Your task to perform on an android device: Search for "logitech g933" on amazon, select the first entry, add it to the cart, then select checkout. Image 0: 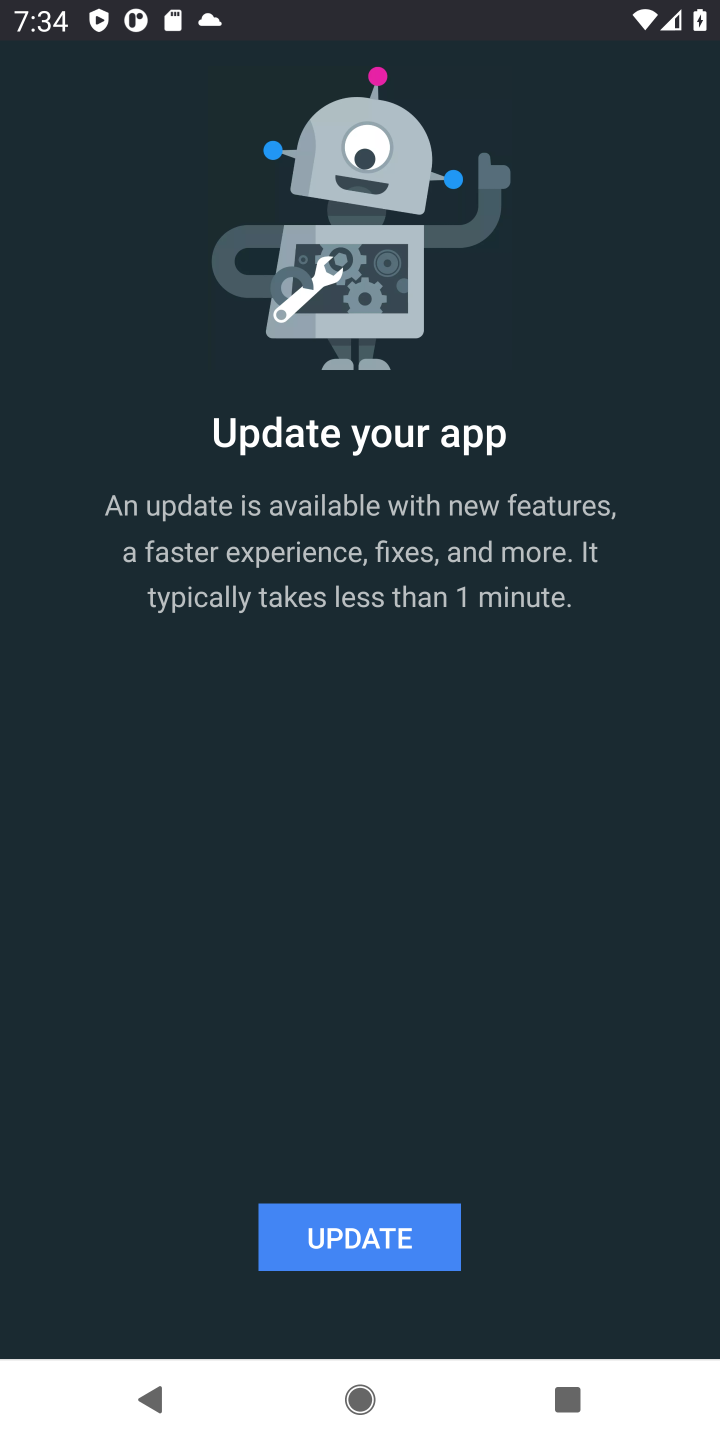
Step 0: press home button
Your task to perform on an android device: Search for "logitech g933" on amazon, select the first entry, add it to the cart, then select checkout. Image 1: 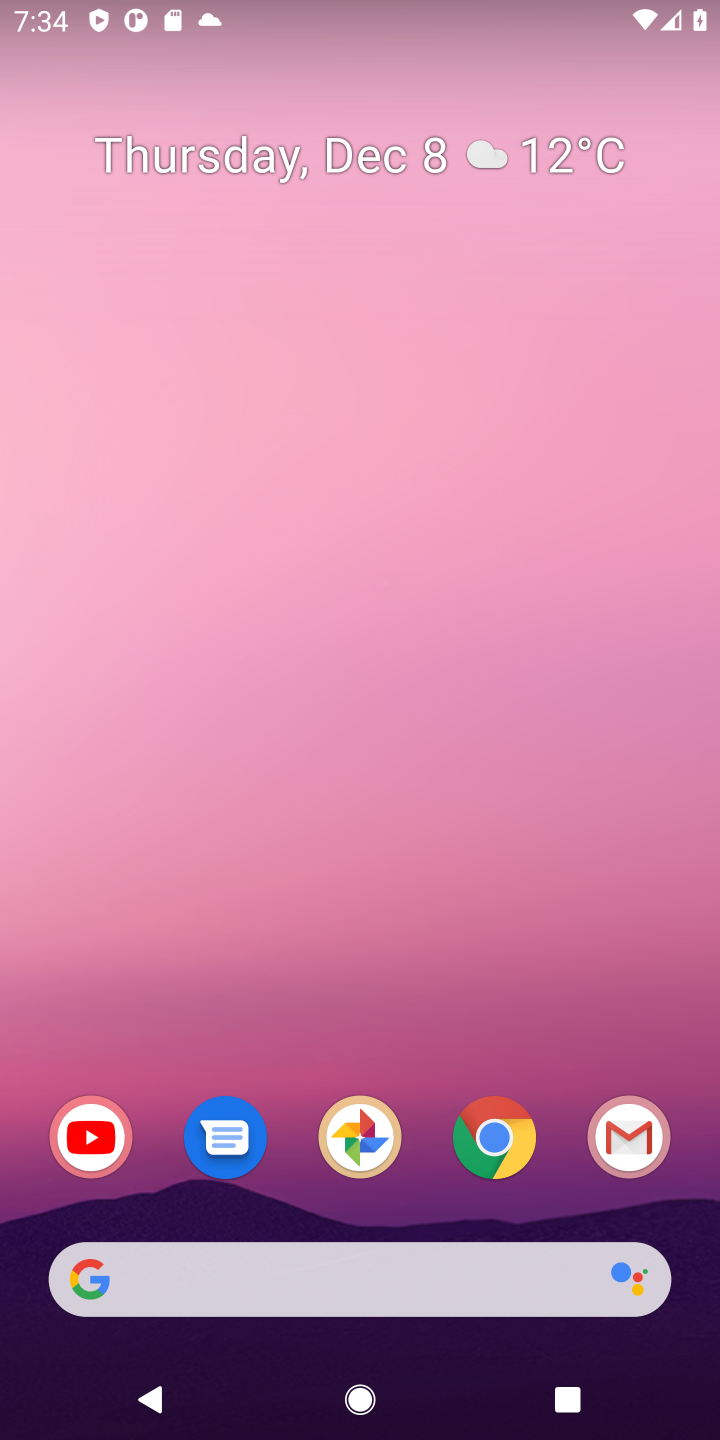
Step 1: click (491, 1116)
Your task to perform on an android device: Search for "logitech g933" on amazon, select the first entry, add it to the cart, then select checkout. Image 2: 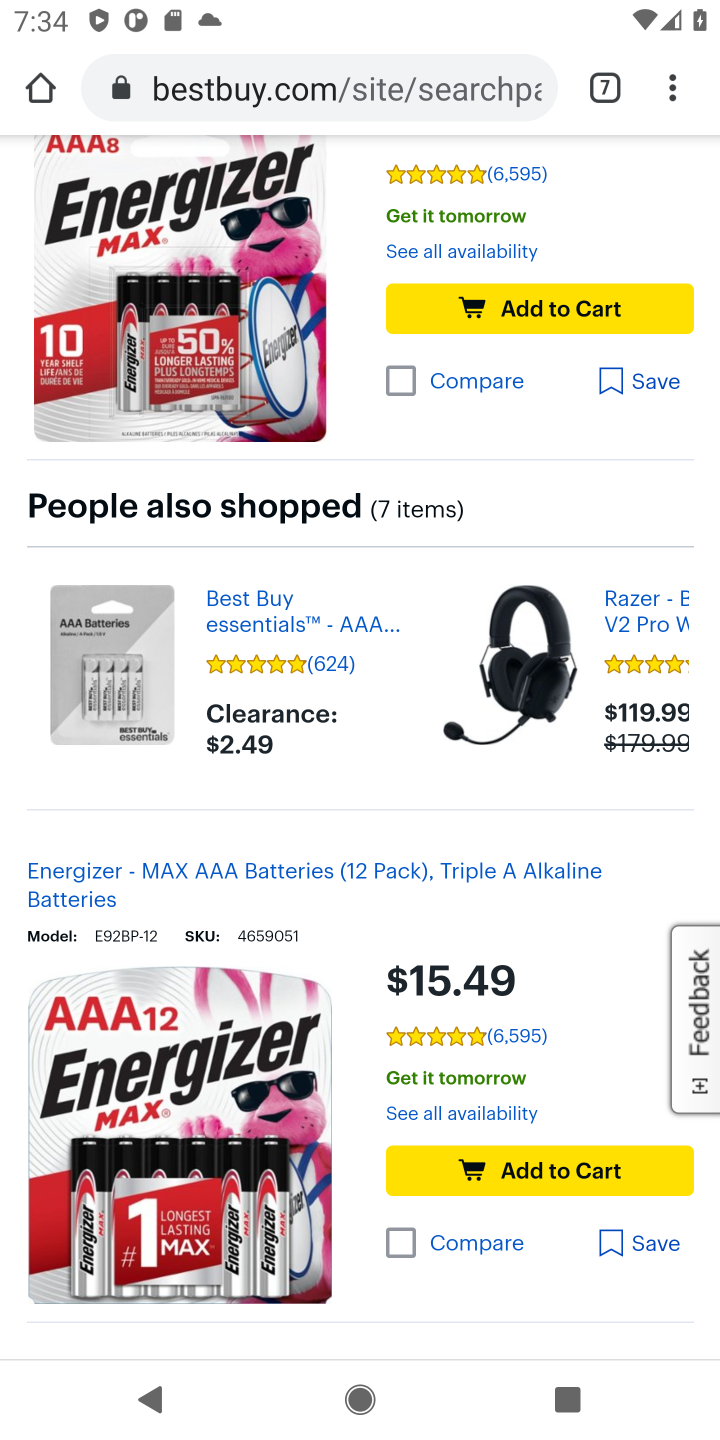
Step 2: click (597, 94)
Your task to perform on an android device: Search for "logitech g933" on amazon, select the first entry, add it to the cart, then select checkout. Image 3: 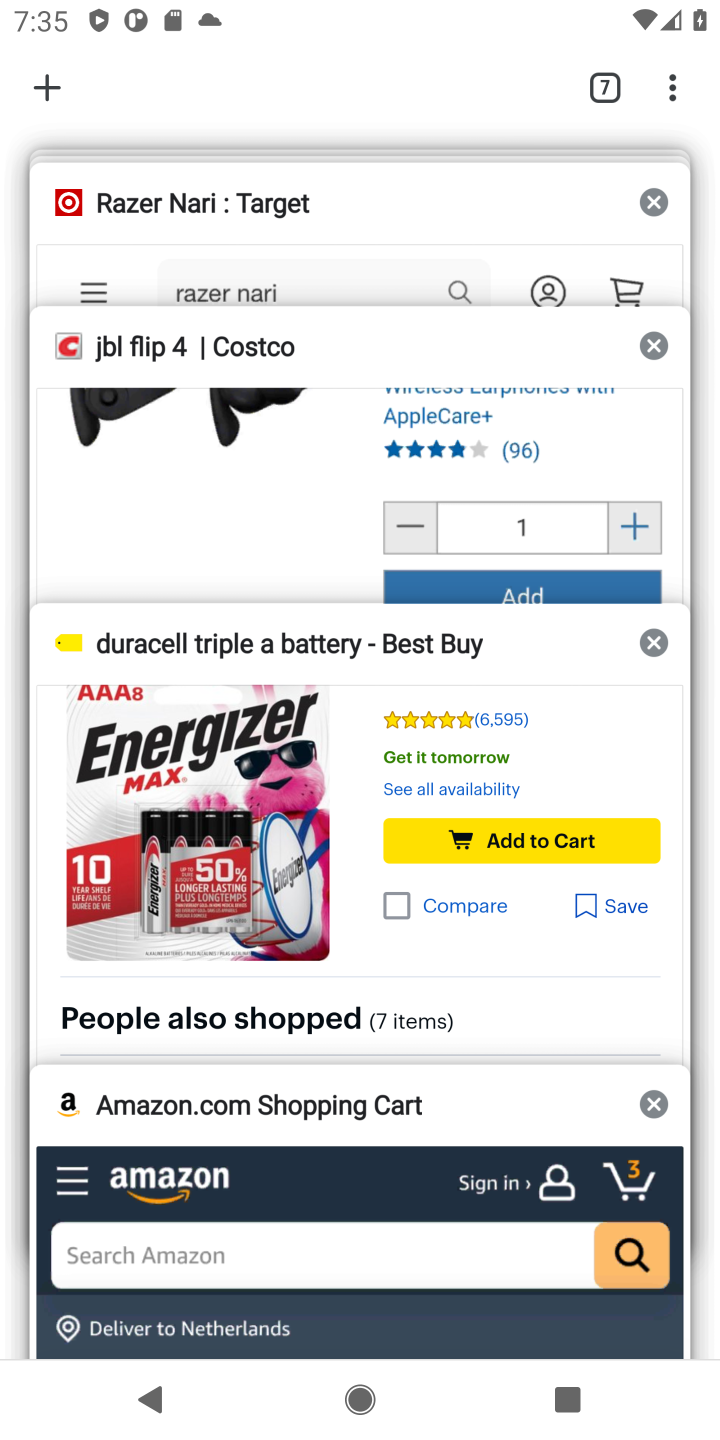
Step 3: click (133, 1205)
Your task to perform on an android device: Search for "logitech g933" on amazon, select the first entry, add it to the cart, then select checkout. Image 4: 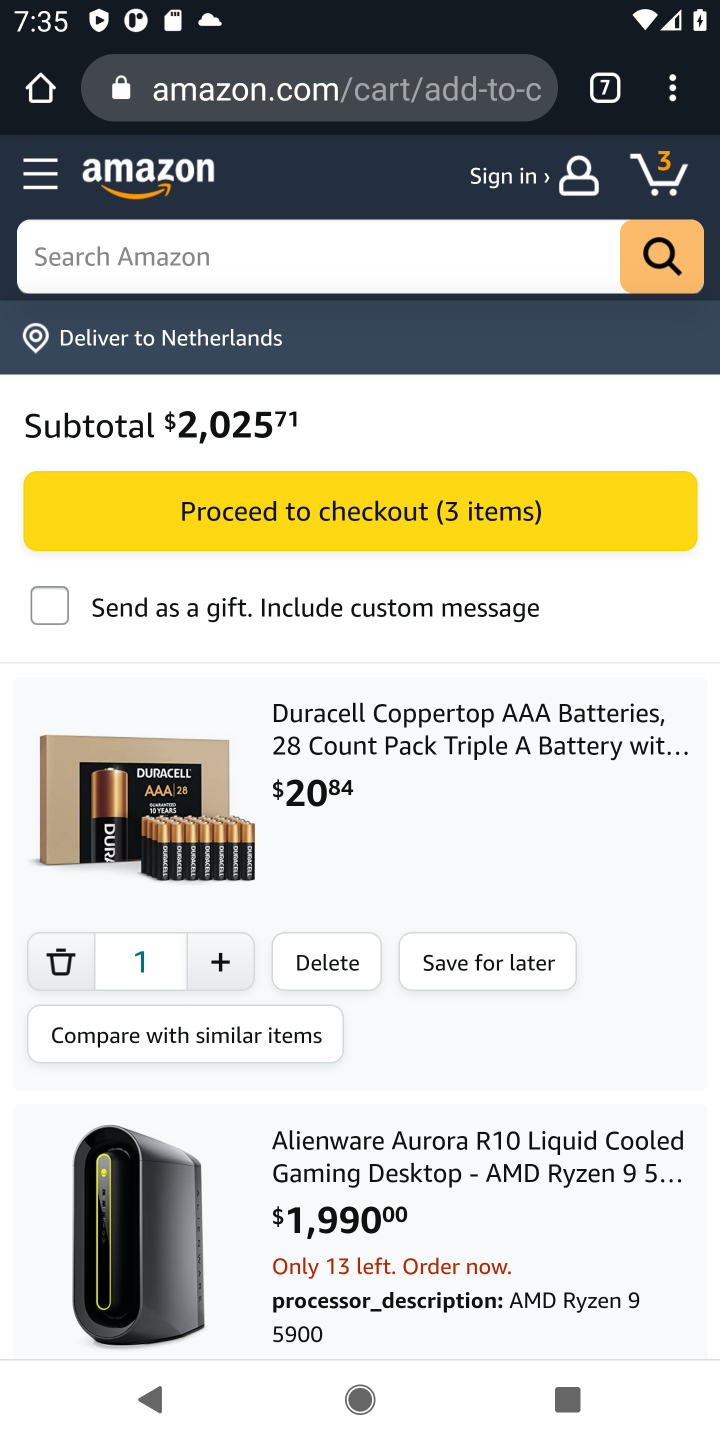
Step 4: click (284, 227)
Your task to perform on an android device: Search for "logitech g933" on amazon, select the first entry, add it to the cart, then select checkout. Image 5: 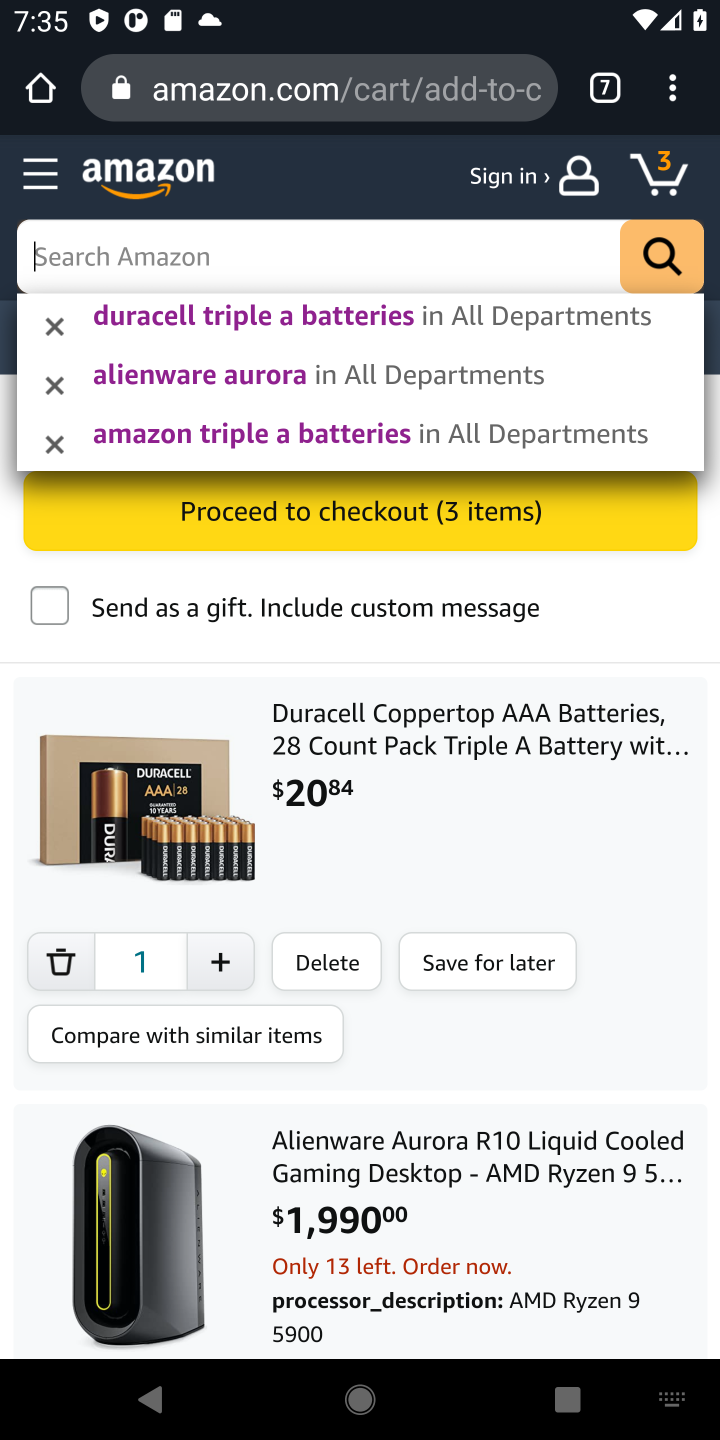
Step 5: type "logitech g933"
Your task to perform on an android device: Search for "logitech g933" on amazon, select the first entry, add it to the cart, then select checkout. Image 6: 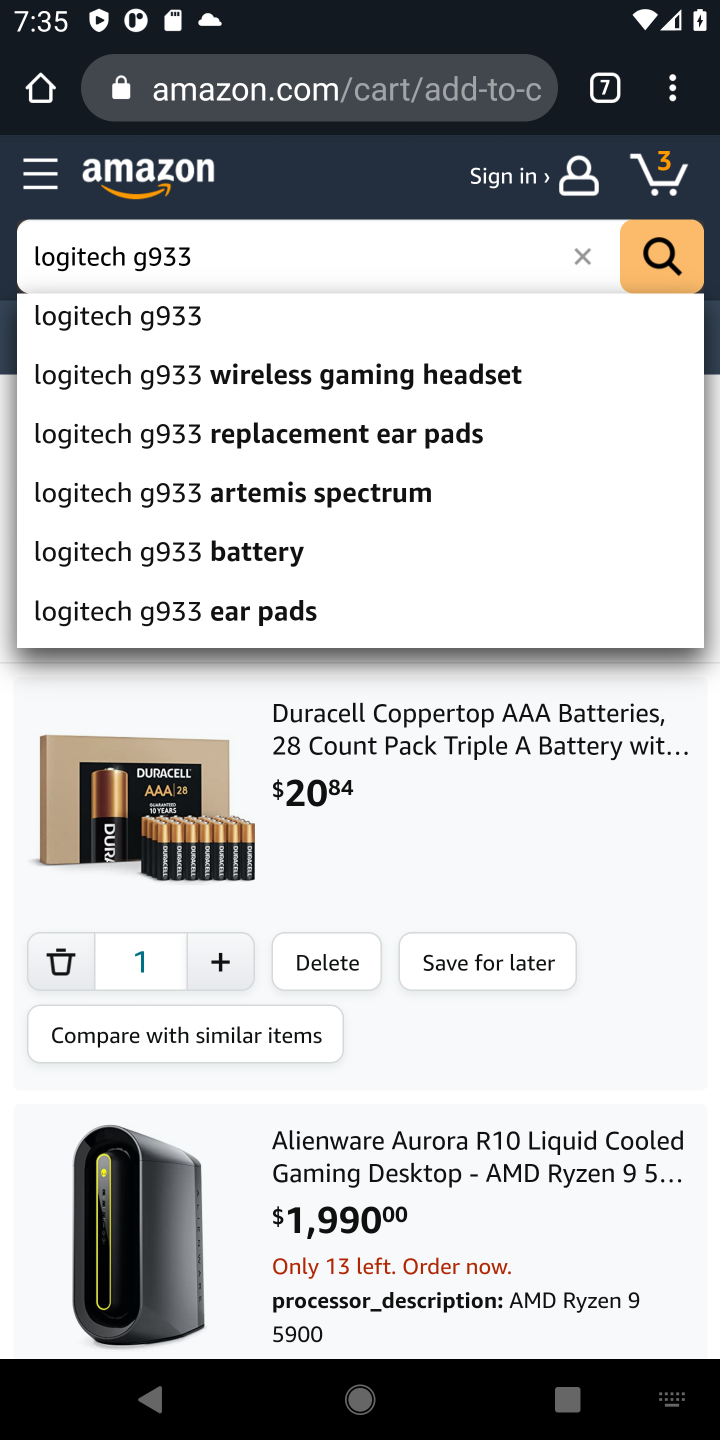
Step 6: click (172, 326)
Your task to perform on an android device: Search for "logitech g933" on amazon, select the first entry, add it to the cart, then select checkout. Image 7: 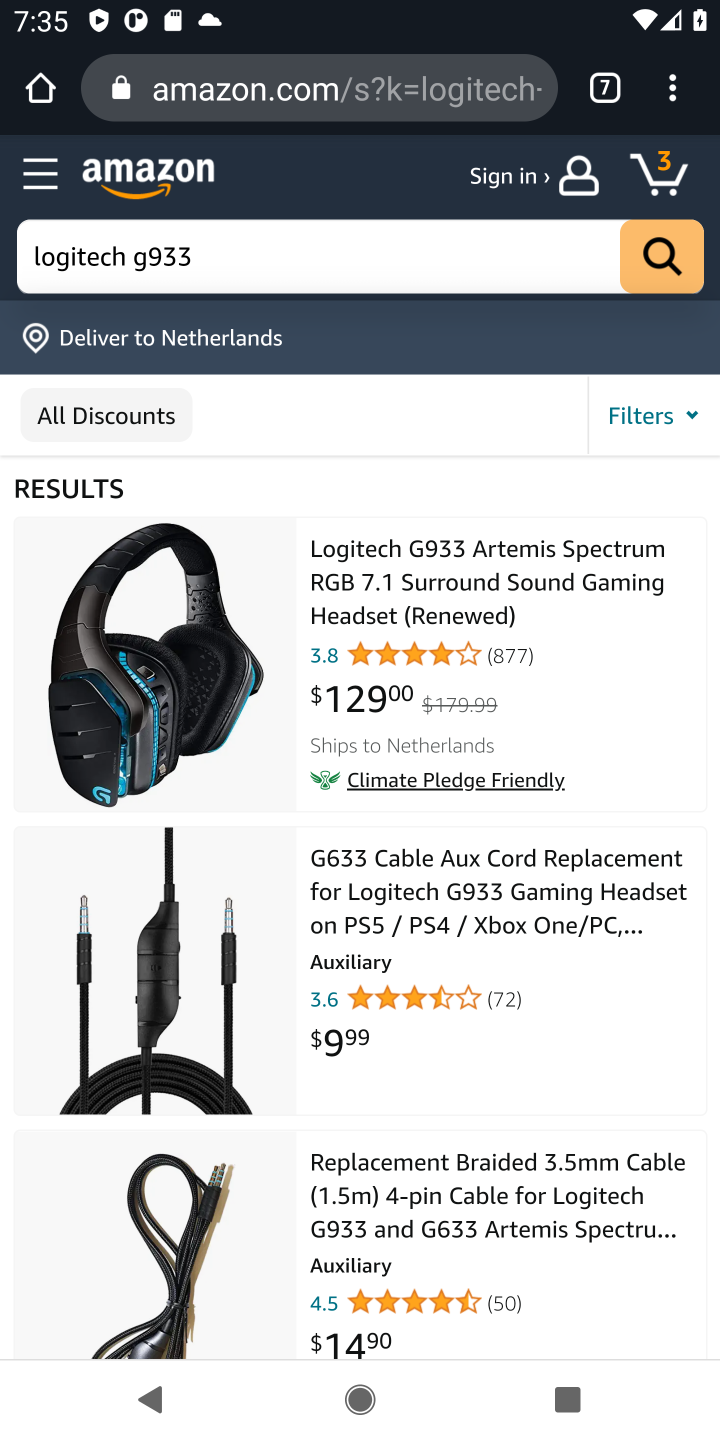
Step 7: click (484, 583)
Your task to perform on an android device: Search for "logitech g933" on amazon, select the first entry, add it to the cart, then select checkout. Image 8: 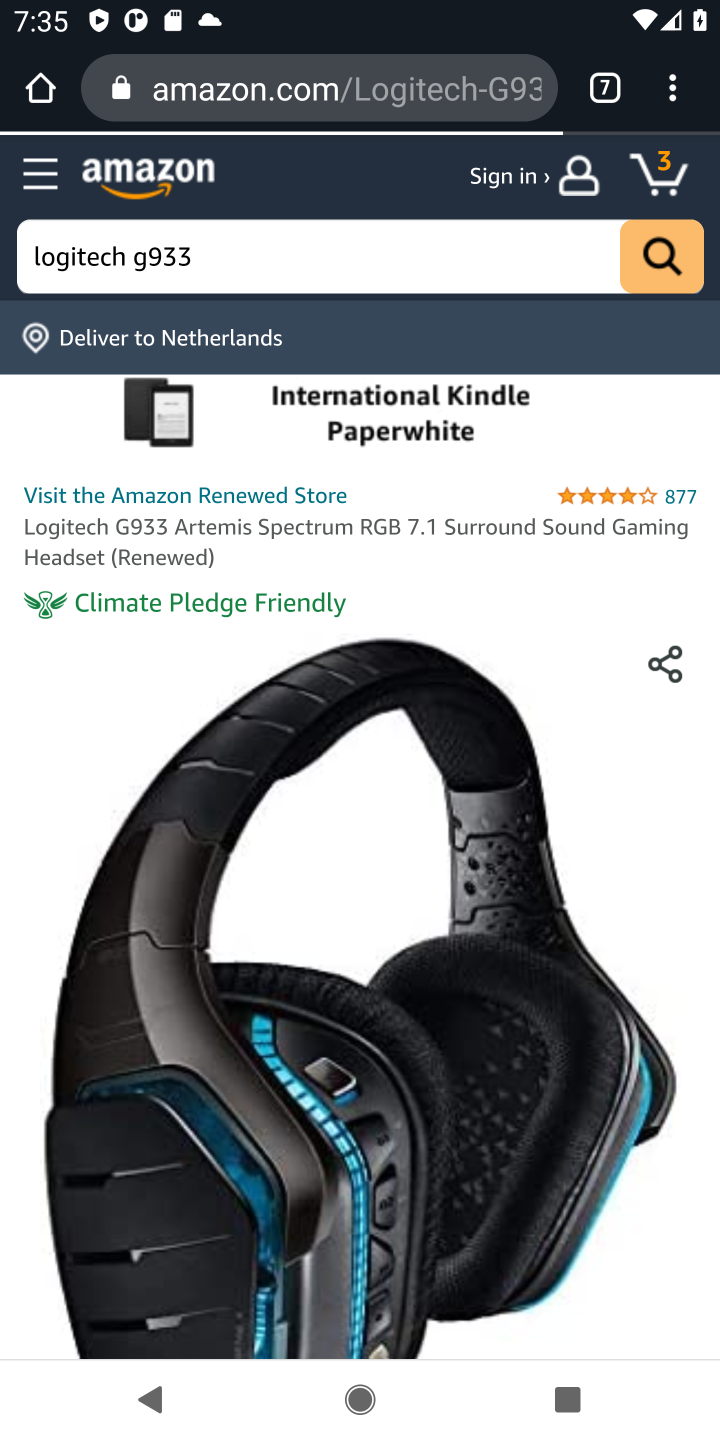
Step 8: drag from (510, 1309) to (555, 447)
Your task to perform on an android device: Search for "logitech g933" on amazon, select the first entry, add it to the cart, then select checkout. Image 9: 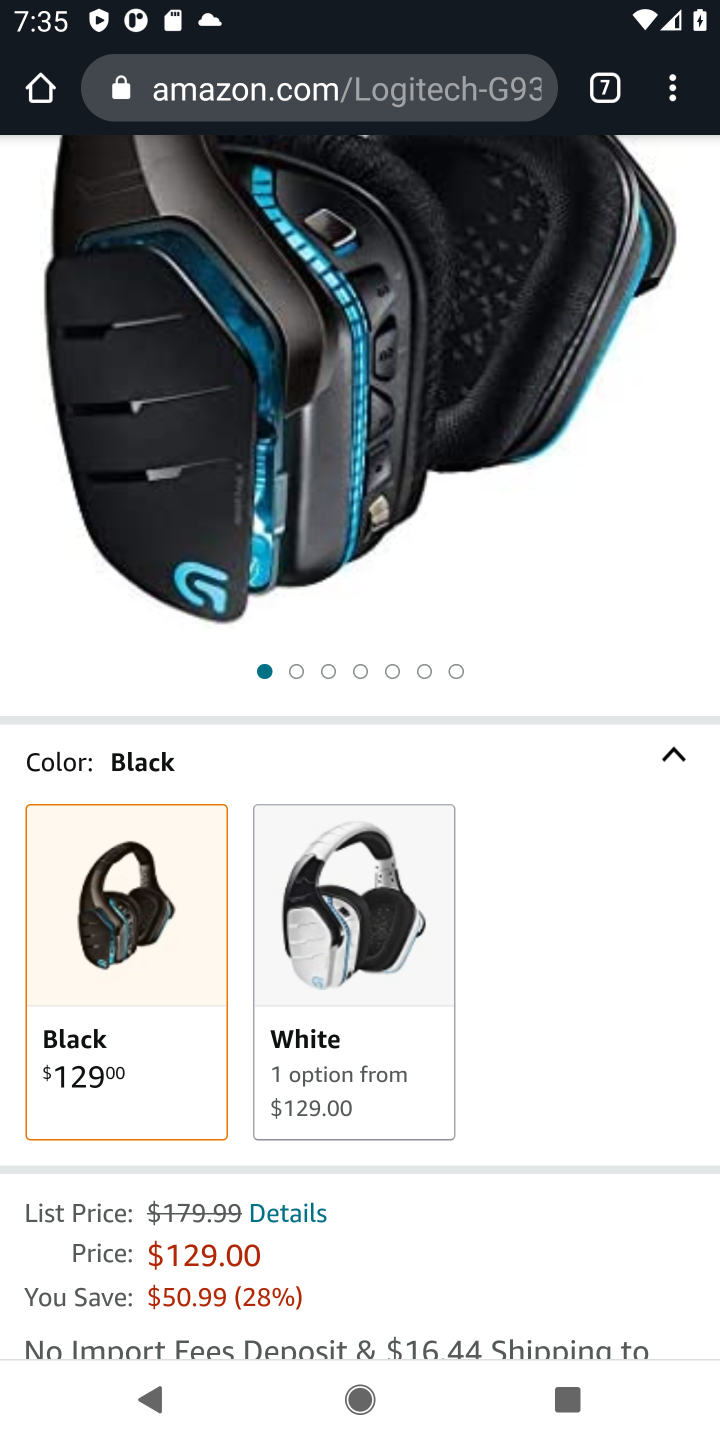
Step 9: drag from (415, 1225) to (609, 636)
Your task to perform on an android device: Search for "logitech g933" on amazon, select the first entry, add it to the cart, then select checkout. Image 10: 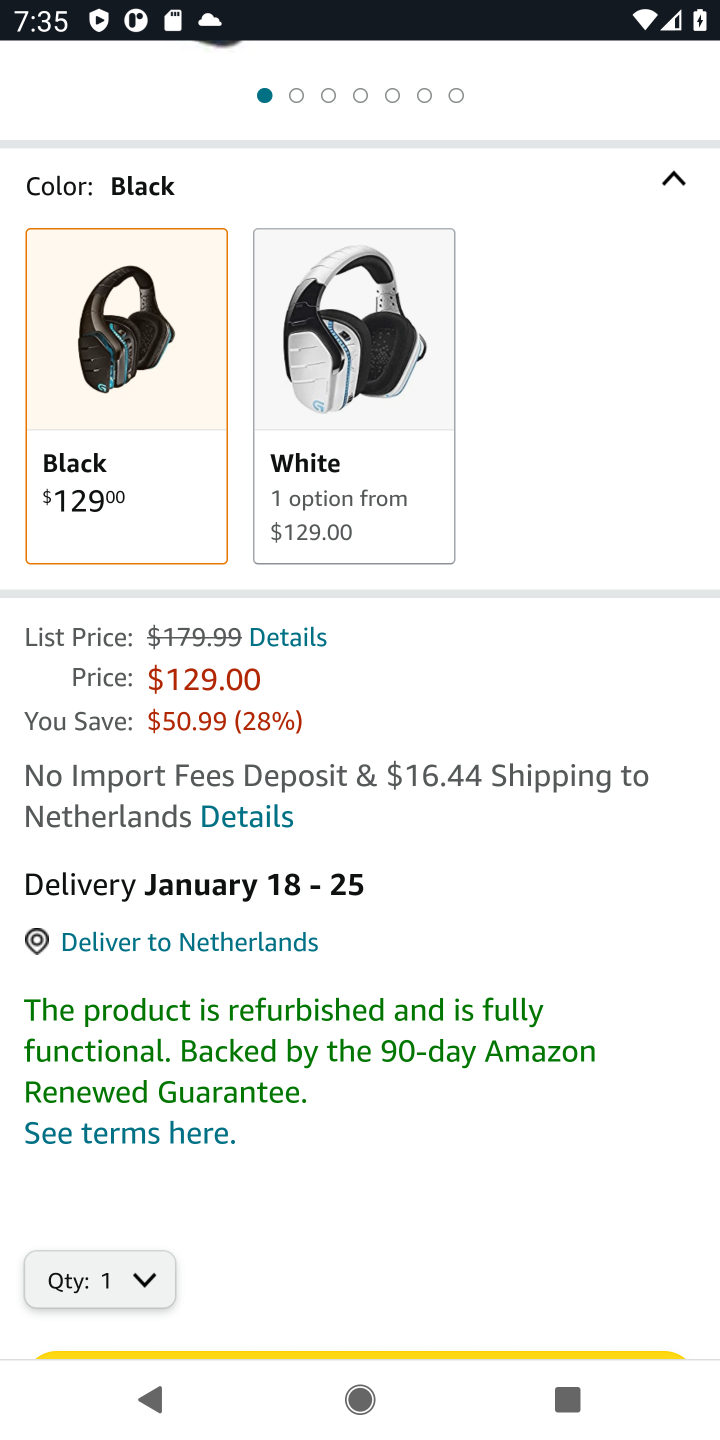
Step 10: drag from (327, 1238) to (449, 336)
Your task to perform on an android device: Search for "logitech g933" on amazon, select the first entry, add it to the cart, then select checkout. Image 11: 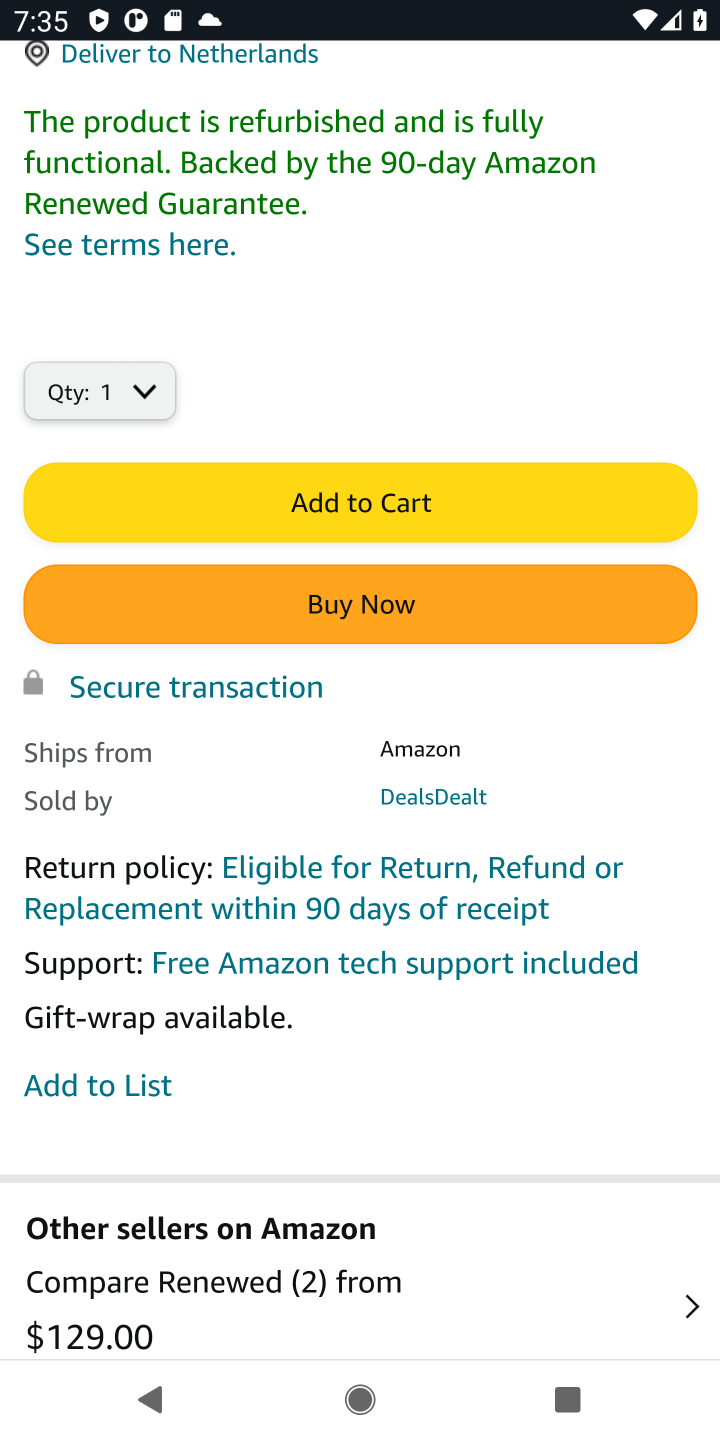
Step 11: click (404, 515)
Your task to perform on an android device: Search for "logitech g933" on amazon, select the first entry, add it to the cart, then select checkout. Image 12: 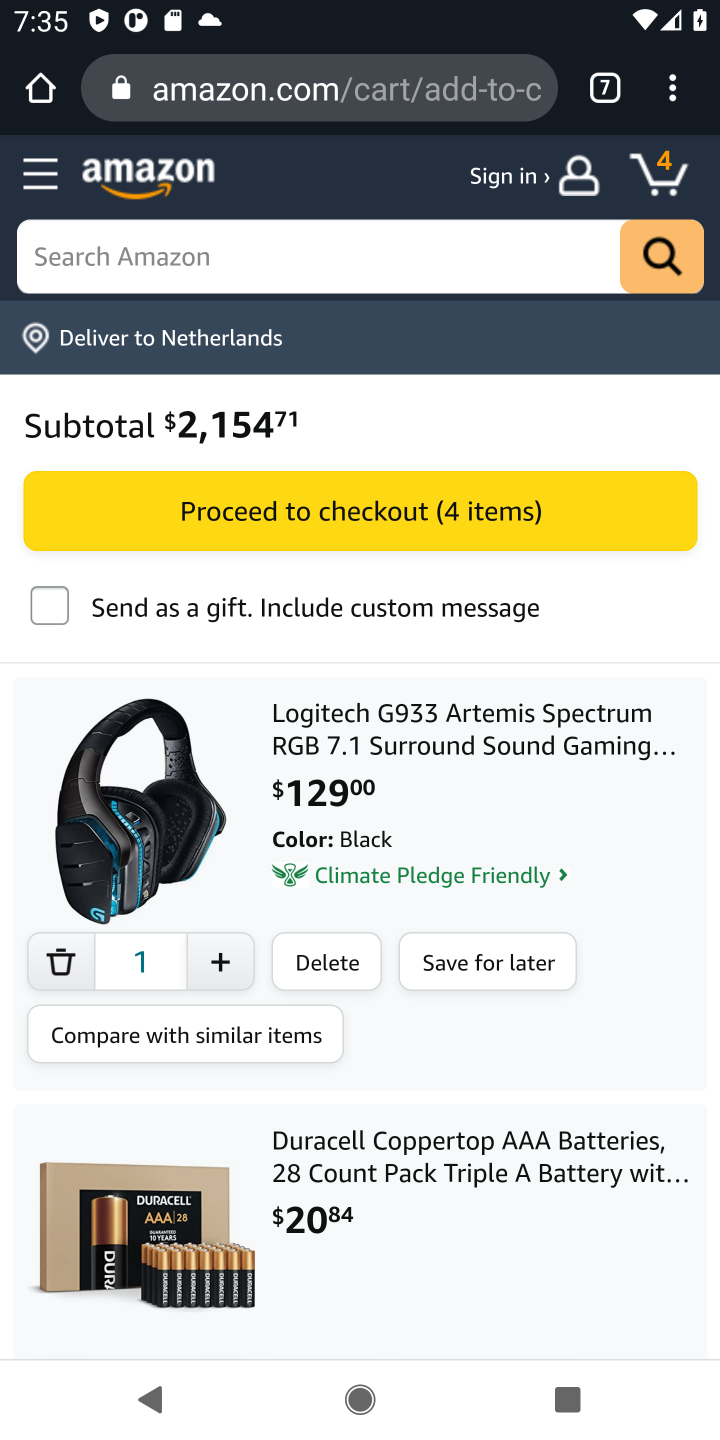
Step 12: click (404, 515)
Your task to perform on an android device: Search for "logitech g933" on amazon, select the first entry, add it to the cart, then select checkout. Image 13: 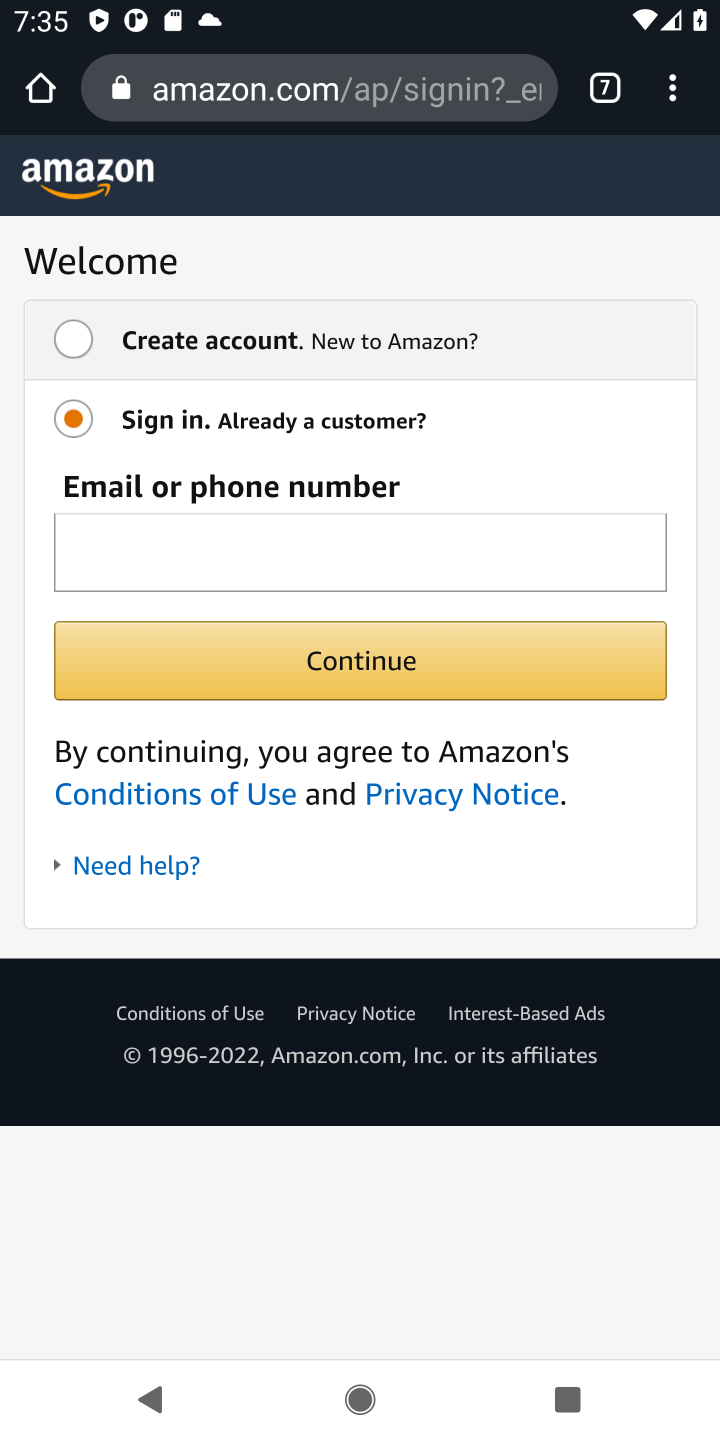
Step 13: task complete